Your task to perform on an android device: Do I have any events tomorrow? Image 0: 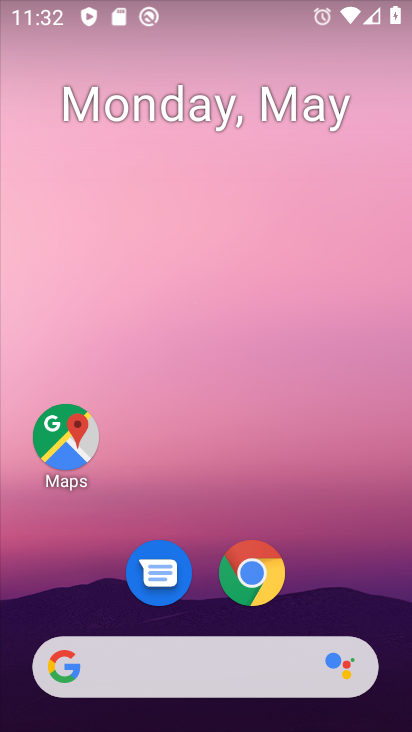
Step 0: drag from (163, 678) to (158, 1)
Your task to perform on an android device: Do I have any events tomorrow? Image 1: 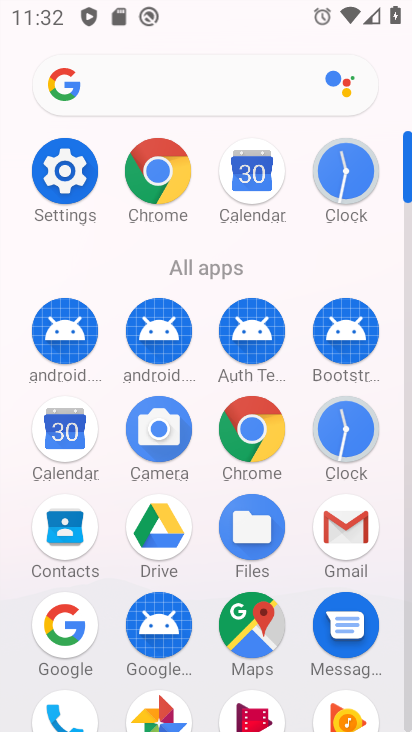
Step 1: click (243, 189)
Your task to perform on an android device: Do I have any events tomorrow? Image 2: 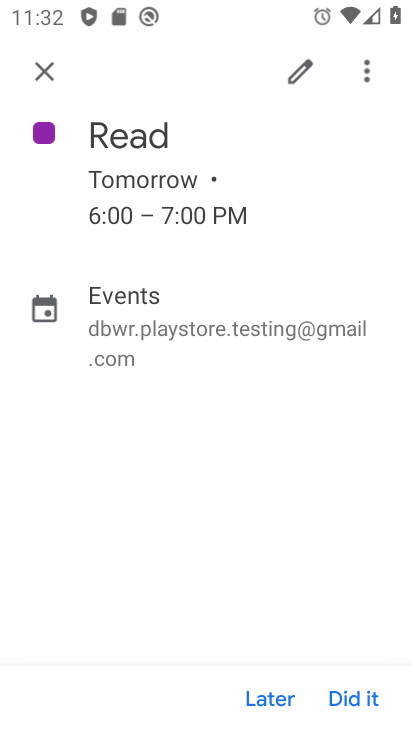
Step 2: click (43, 67)
Your task to perform on an android device: Do I have any events tomorrow? Image 3: 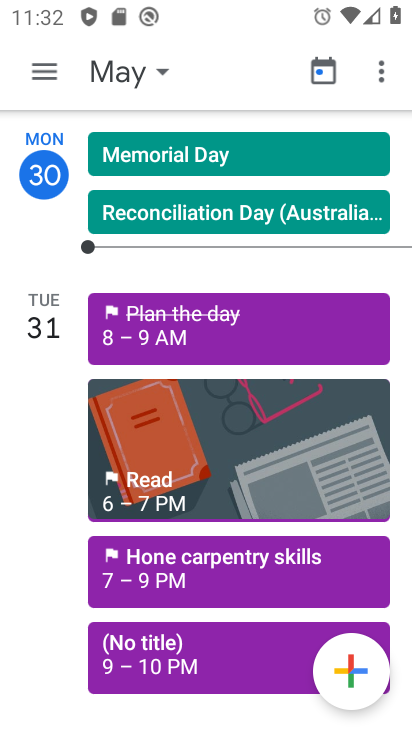
Step 3: click (208, 580)
Your task to perform on an android device: Do I have any events tomorrow? Image 4: 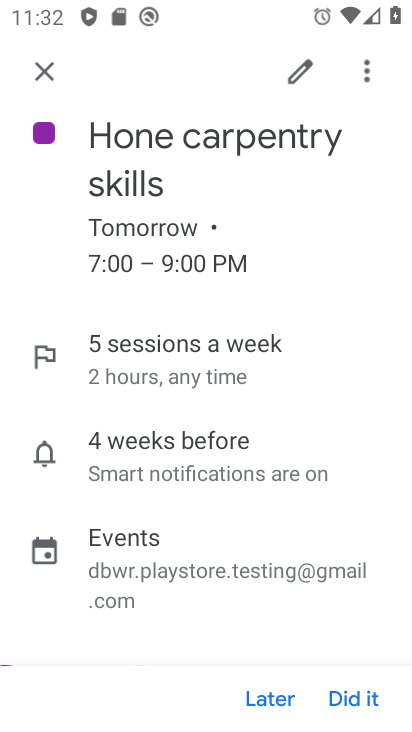
Step 4: click (41, 64)
Your task to perform on an android device: Do I have any events tomorrow? Image 5: 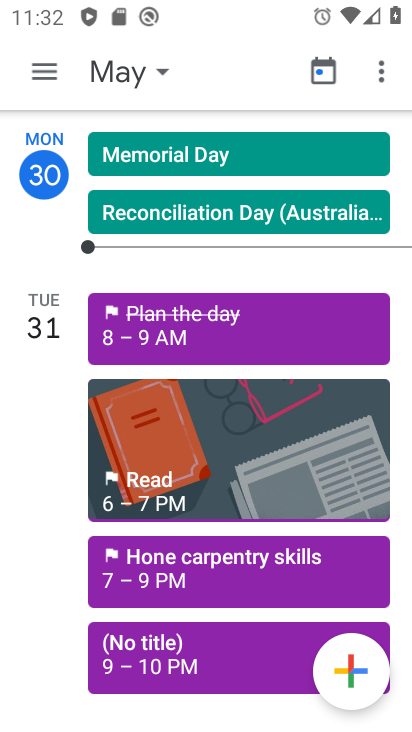
Step 5: task complete